Your task to perform on an android device: change the clock display to analog Image 0: 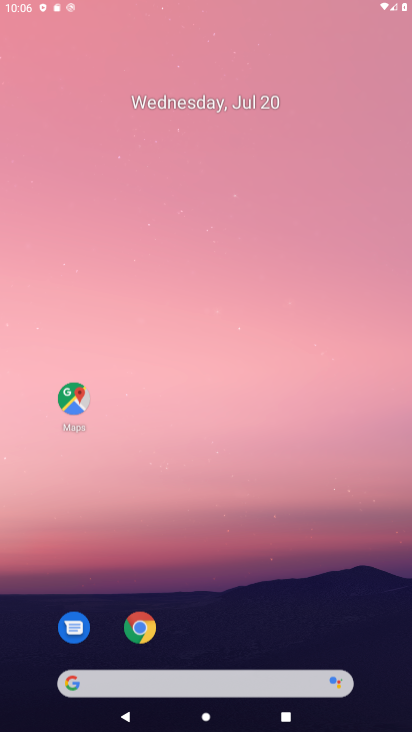
Step 0: drag from (174, 604) to (397, 492)
Your task to perform on an android device: change the clock display to analog Image 1: 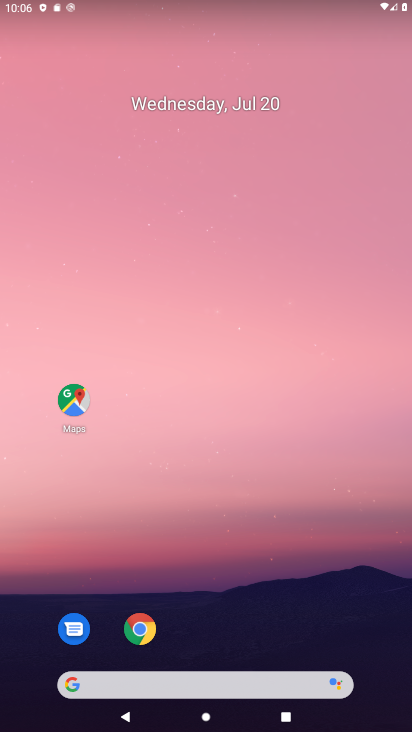
Step 1: drag from (204, 622) to (401, 122)
Your task to perform on an android device: change the clock display to analog Image 2: 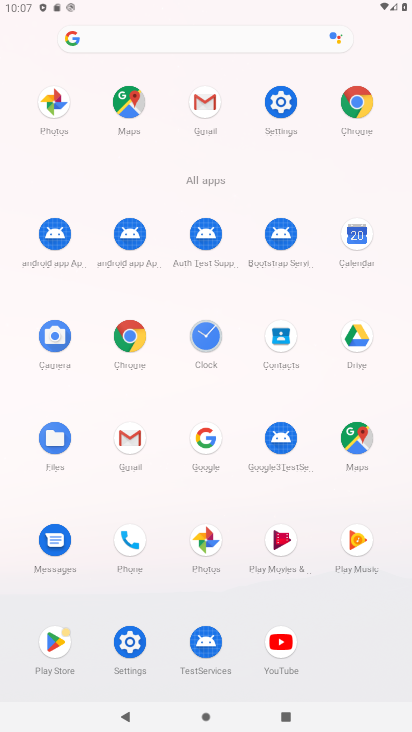
Step 2: click (207, 345)
Your task to perform on an android device: change the clock display to analog Image 3: 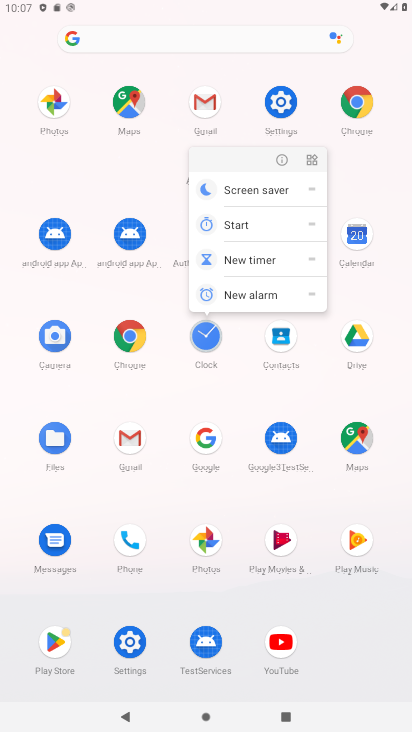
Step 3: click (279, 165)
Your task to perform on an android device: change the clock display to analog Image 4: 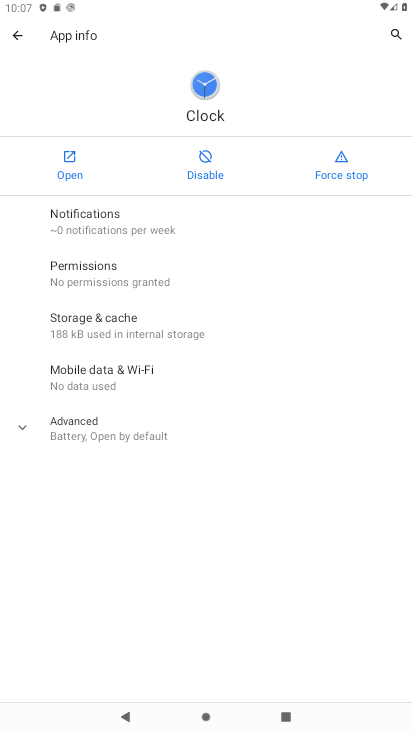
Step 4: click (67, 174)
Your task to perform on an android device: change the clock display to analog Image 5: 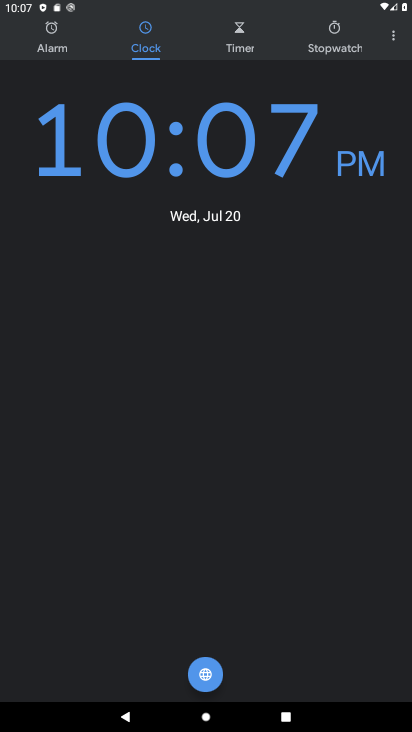
Step 5: drag from (391, 31) to (331, 68)
Your task to perform on an android device: change the clock display to analog Image 6: 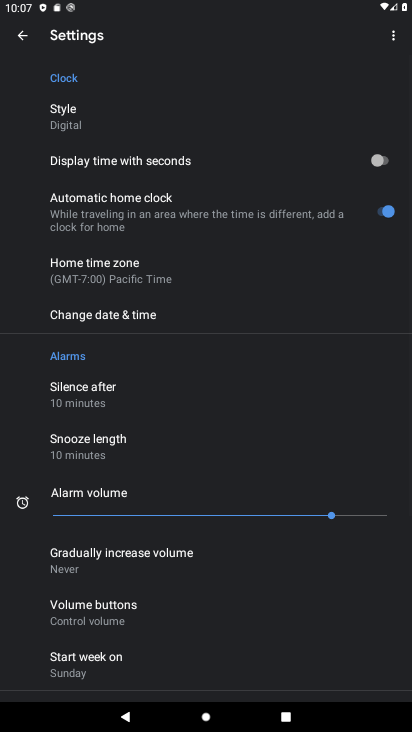
Step 6: click (83, 114)
Your task to perform on an android device: change the clock display to analog Image 7: 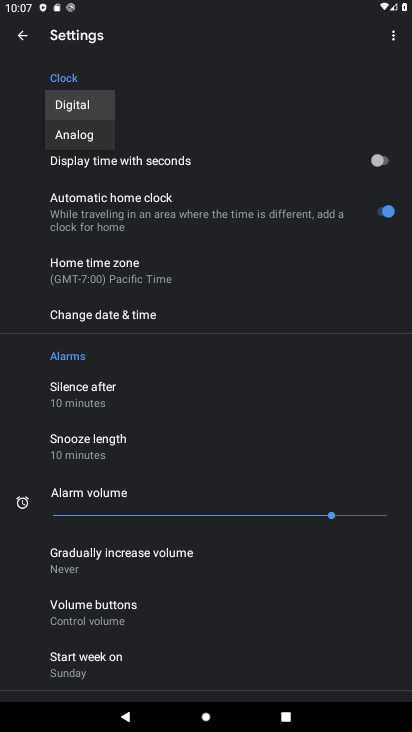
Step 7: click (84, 134)
Your task to perform on an android device: change the clock display to analog Image 8: 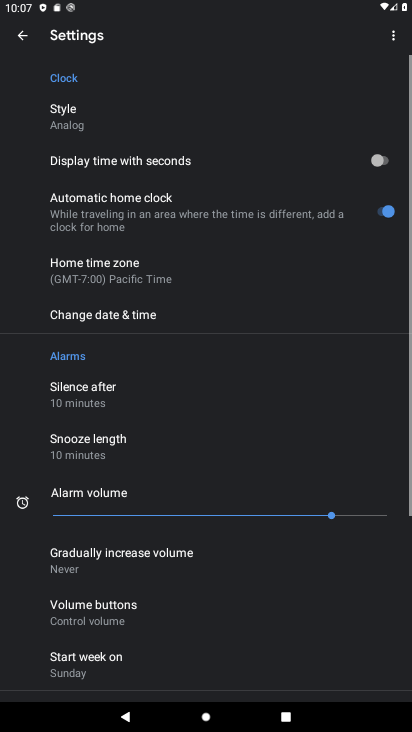
Step 8: task complete